Your task to perform on an android device: Open Android settings Image 0: 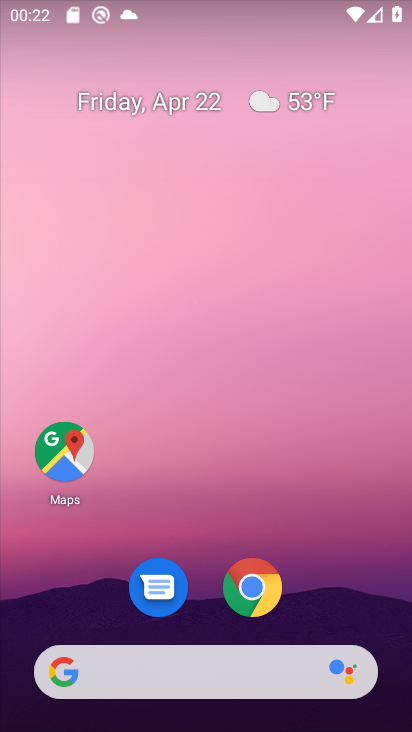
Step 0: drag from (307, 535) to (281, 99)
Your task to perform on an android device: Open Android settings Image 1: 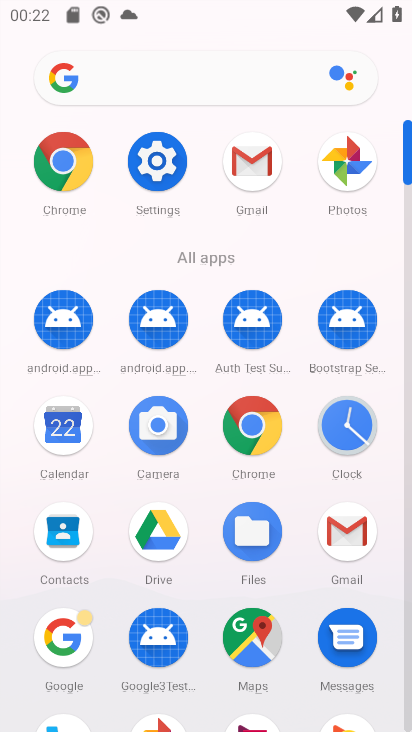
Step 1: click (156, 181)
Your task to perform on an android device: Open Android settings Image 2: 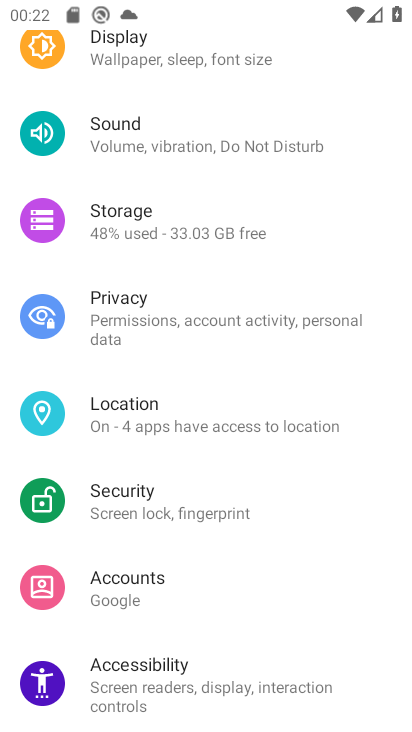
Step 2: drag from (205, 660) to (187, 252)
Your task to perform on an android device: Open Android settings Image 3: 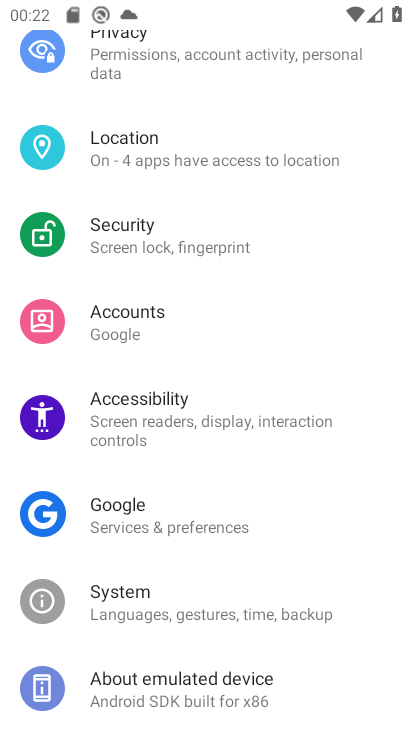
Step 3: drag from (159, 649) to (167, 272)
Your task to perform on an android device: Open Android settings Image 4: 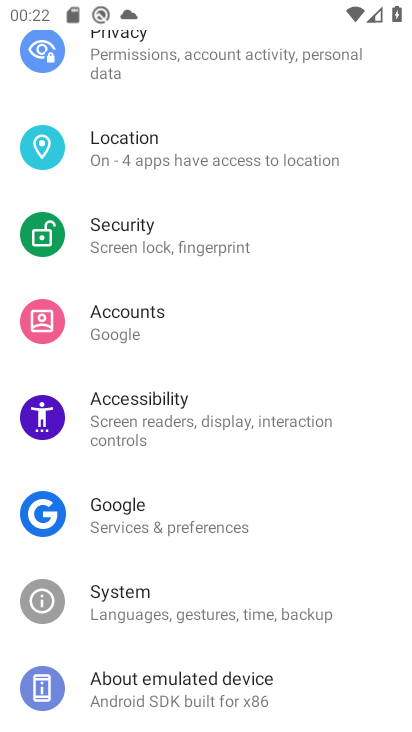
Step 4: click (163, 668)
Your task to perform on an android device: Open Android settings Image 5: 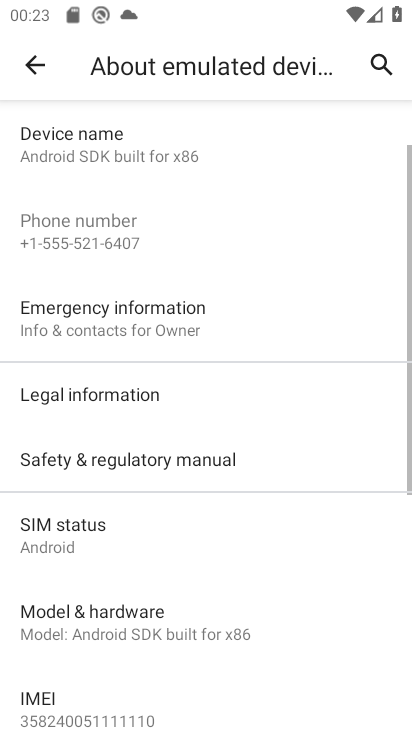
Step 5: task complete